Your task to perform on an android device: delete a single message in the gmail app Image 0: 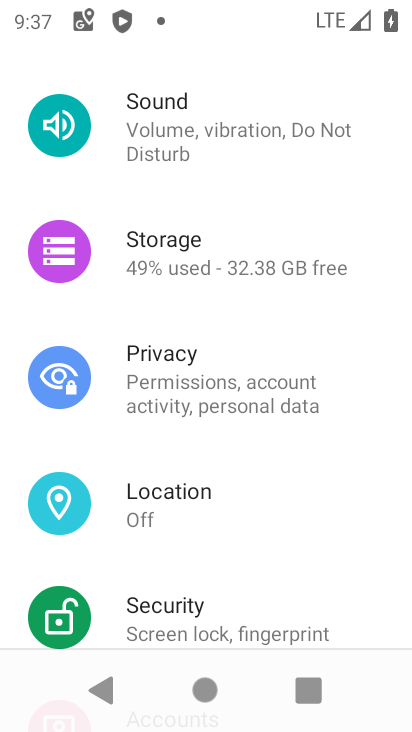
Step 0: press home button
Your task to perform on an android device: delete a single message in the gmail app Image 1: 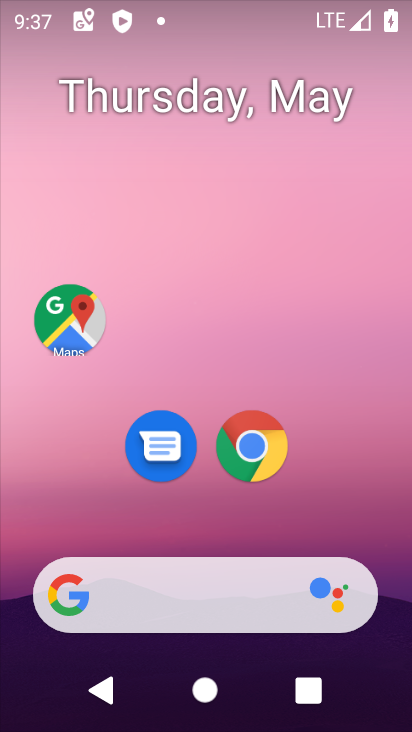
Step 1: drag from (399, 614) to (273, 105)
Your task to perform on an android device: delete a single message in the gmail app Image 2: 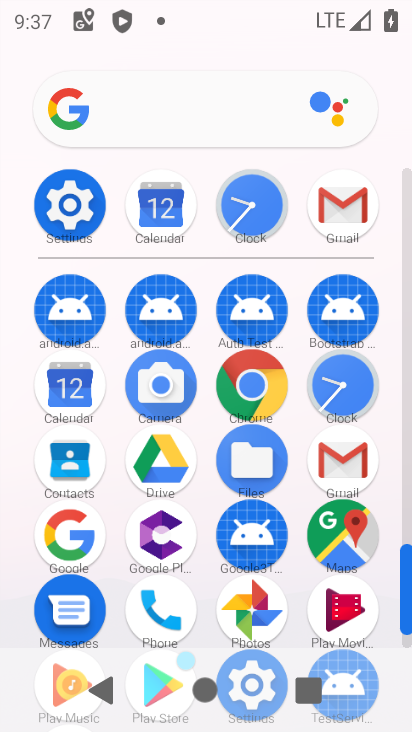
Step 2: click (344, 456)
Your task to perform on an android device: delete a single message in the gmail app Image 3: 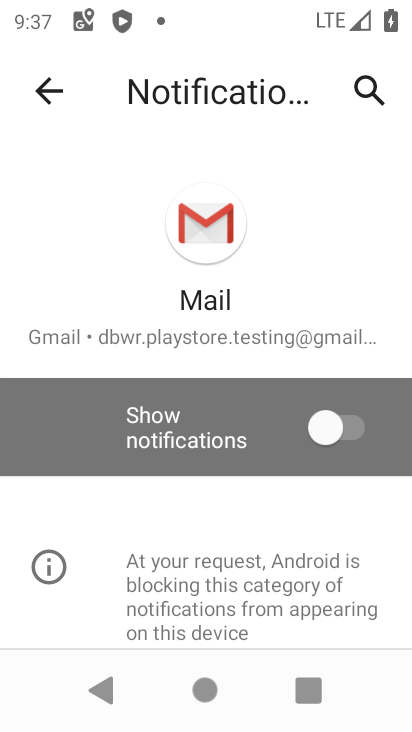
Step 3: press back button
Your task to perform on an android device: delete a single message in the gmail app Image 4: 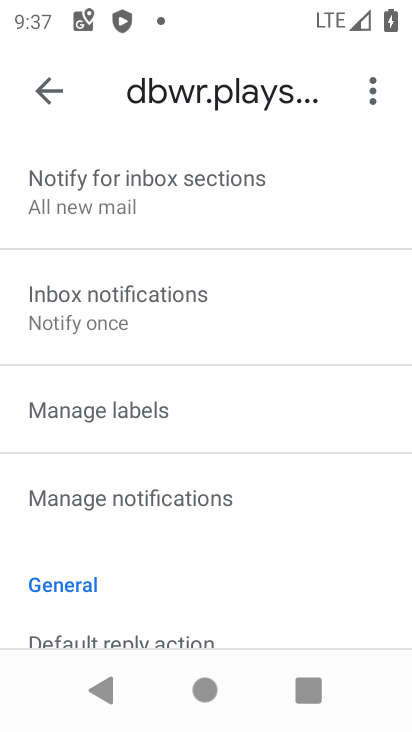
Step 4: press back button
Your task to perform on an android device: delete a single message in the gmail app Image 5: 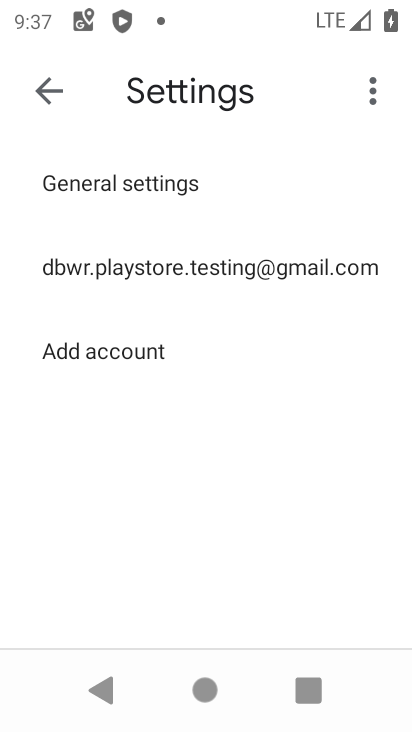
Step 5: press back button
Your task to perform on an android device: delete a single message in the gmail app Image 6: 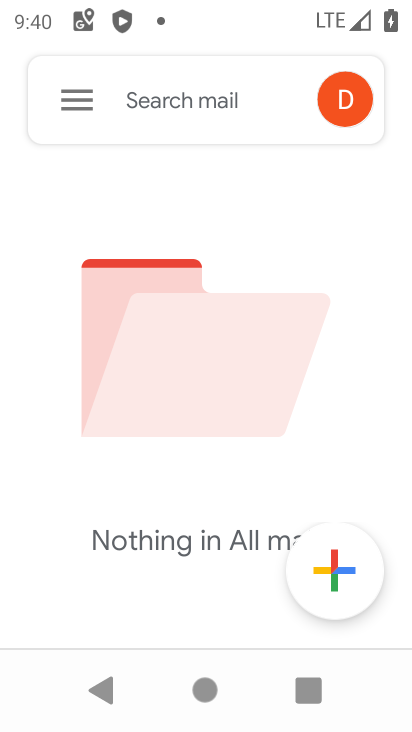
Step 6: click (80, 97)
Your task to perform on an android device: delete a single message in the gmail app Image 7: 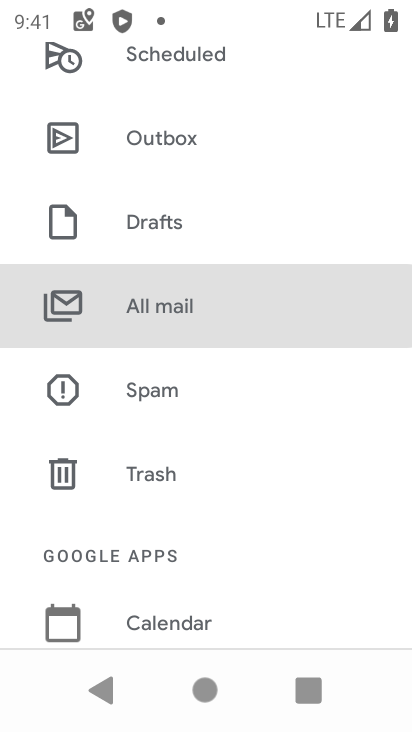
Step 7: click (178, 296)
Your task to perform on an android device: delete a single message in the gmail app Image 8: 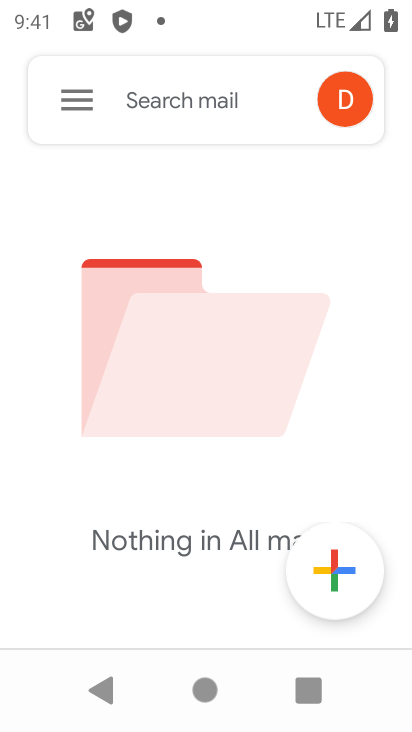
Step 8: task complete